Your task to perform on an android device: toggle data saver in the chrome app Image 0: 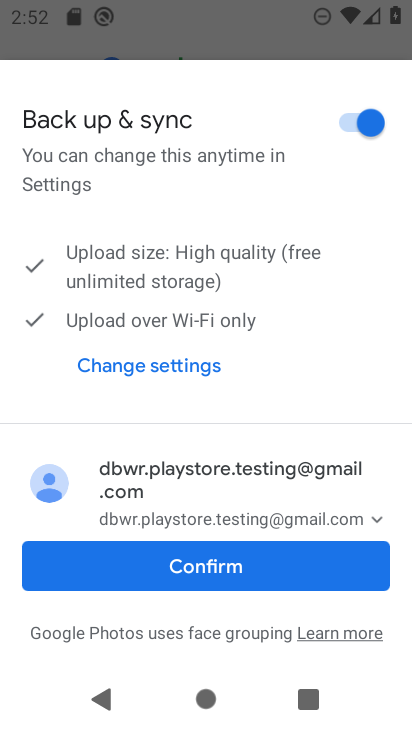
Step 0: press home button
Your task to perform on an android device: toggle data saver in the chrome app Image 1: 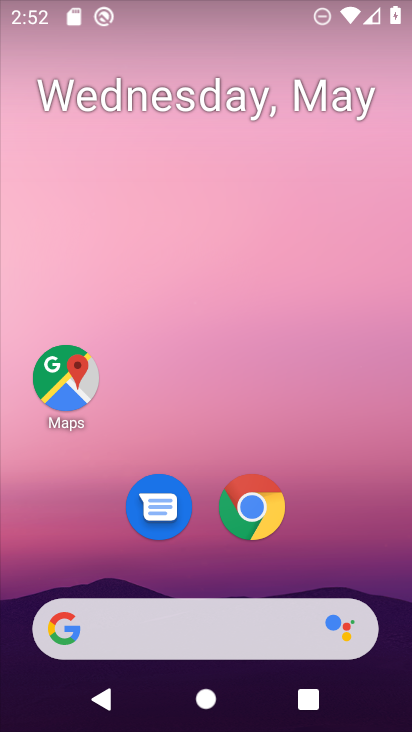
Step 1: drag from (191, 590) to (221, 7)
Your task to perform on an android device: toggle data saver in the chrome app Image 2: 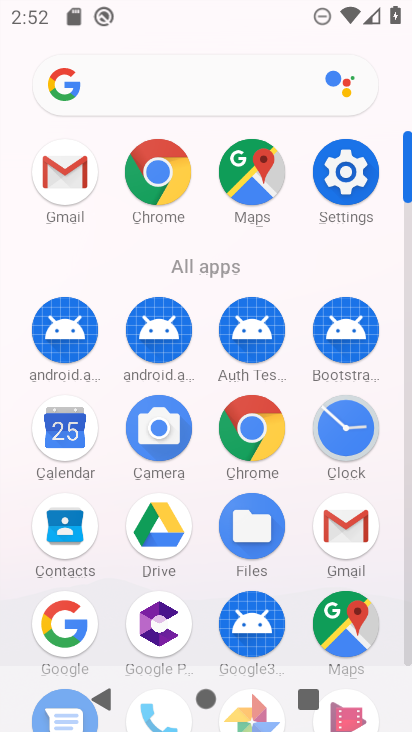
Step 2: click (268, 448)
Your task to perform on an android device: toggle data saver in the chrome app Image 3: 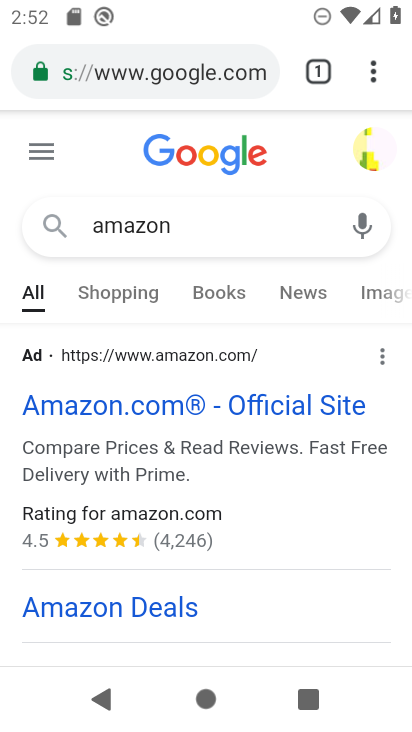
Step 3: click (374, 75)
Your task to perform on an android device: toggle data saver in the chrome app Image 4: 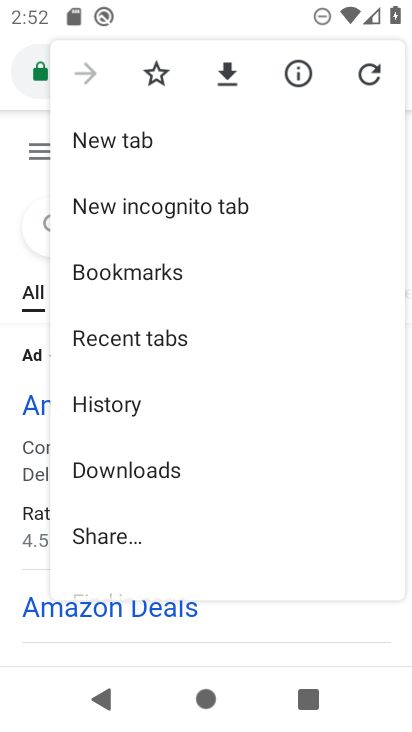
Step 4: drag from (144, 509) to (209, 108)
Your task to perform on an android device: toggle data saver in the chrome app Image 5: 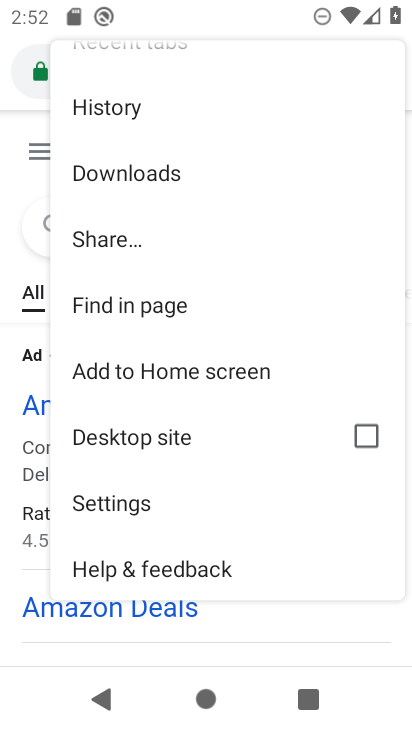
Step 5: click (127, 517)
Your task to perform on an android device: toggle data saver in the chrome app Image 6: 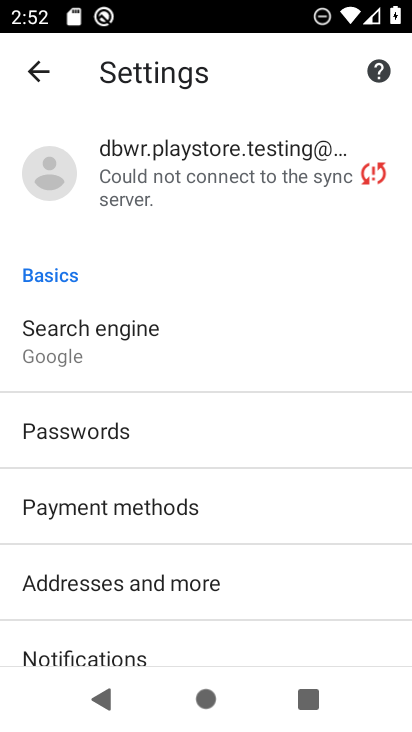
Step 6: drag from (184, 564) to (216, 346)
Your task to perform on an android device: toggle data saver in the chrome app Image 7: 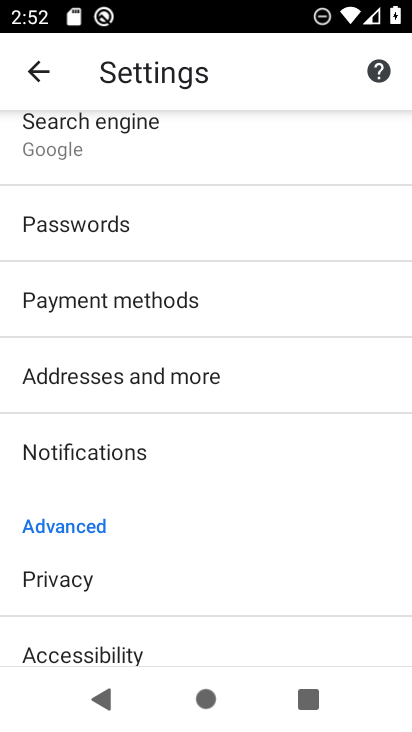
Step 7: drag from (154, 531) to (214, 56)
Your task to perform on an android device: toggle data saver in the chrome app Image 8: 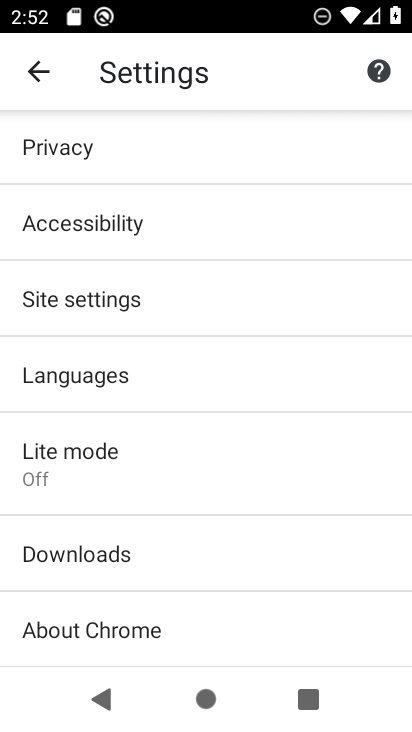
Step 8: drag from (147, 517) to (200, 212)
Your task to perform on an android device: toggle data saver in the chrome app Image 9: 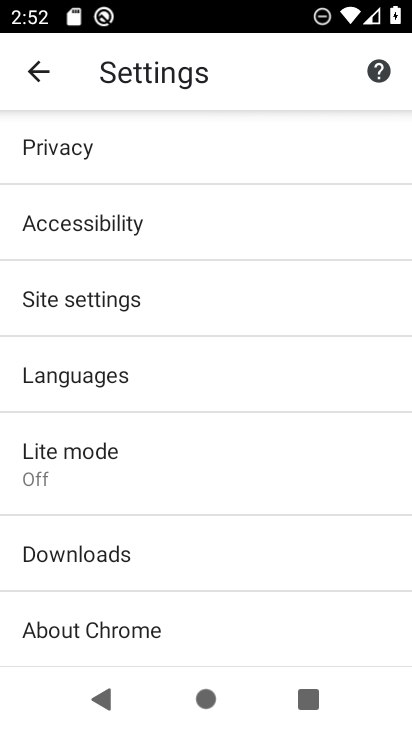
Step 9: click (99, 453)
Your task to perform on an android device: toggle data saver in the chrome app Image 10: 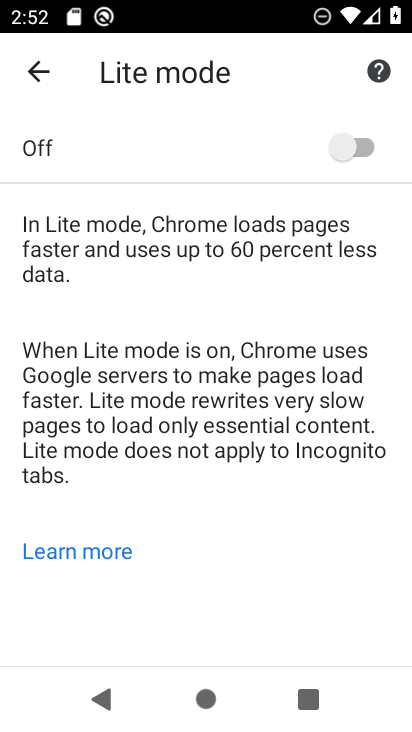
Step 10: click (379, 142)
Your task to perform on an android device: toggle data saver in the chrome app Image 11: 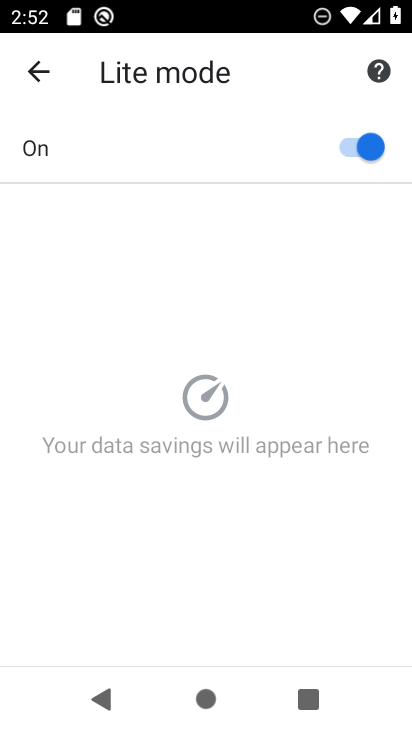
Step 11: task complete